Your task to perform on an android device: Go to internet settings Image 0: 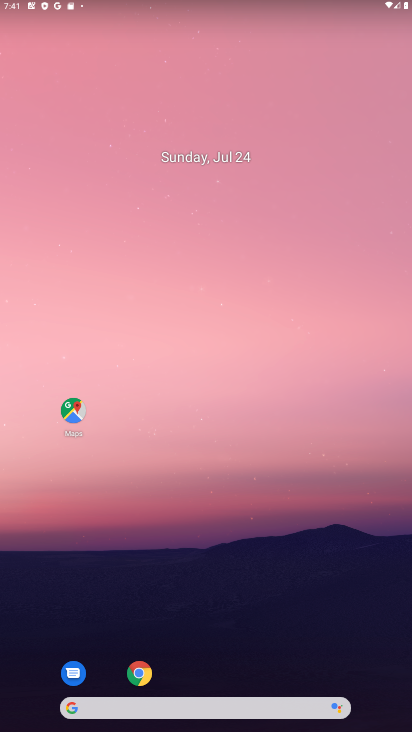
Step 0: drag from (22, 710) to (126, 212)
Your task to perform on an android device: Go to internet settings Image 1: 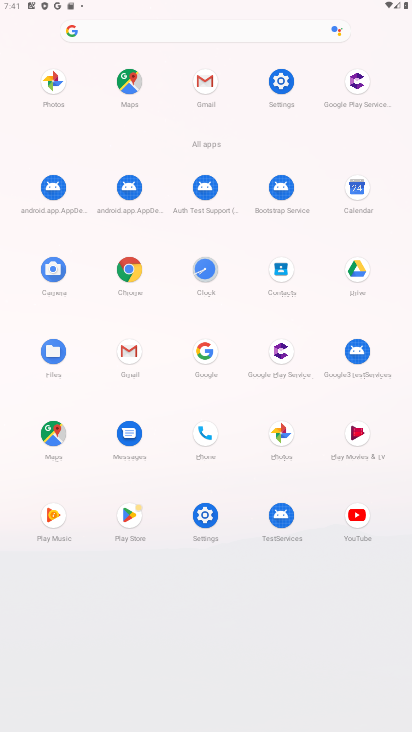
Step 1: click (192, 522)
Your task to perform on an android device: Go to internet settings Image 2: 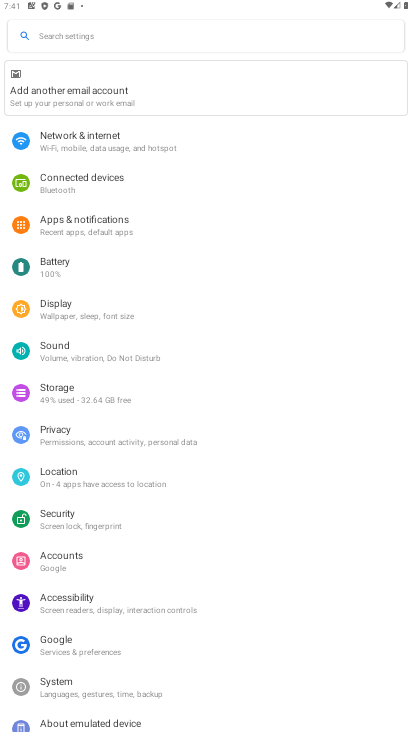
Step 2: click (85, 153)
Your task to perform on an android device: Go to internet settings Image 3: 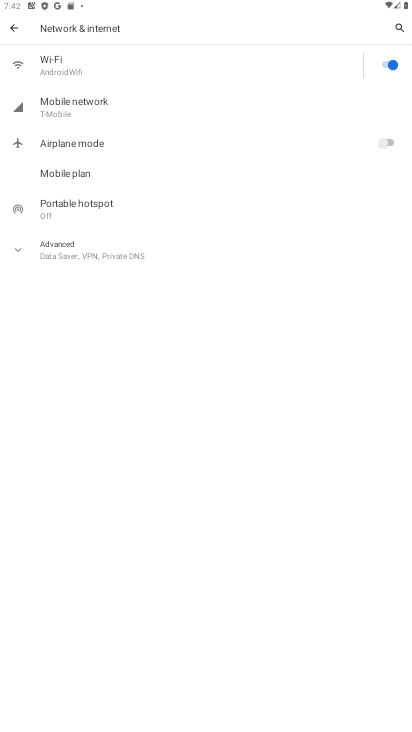
Step 3: task complete